Your task to perform on an android device: Open maps Image 0: 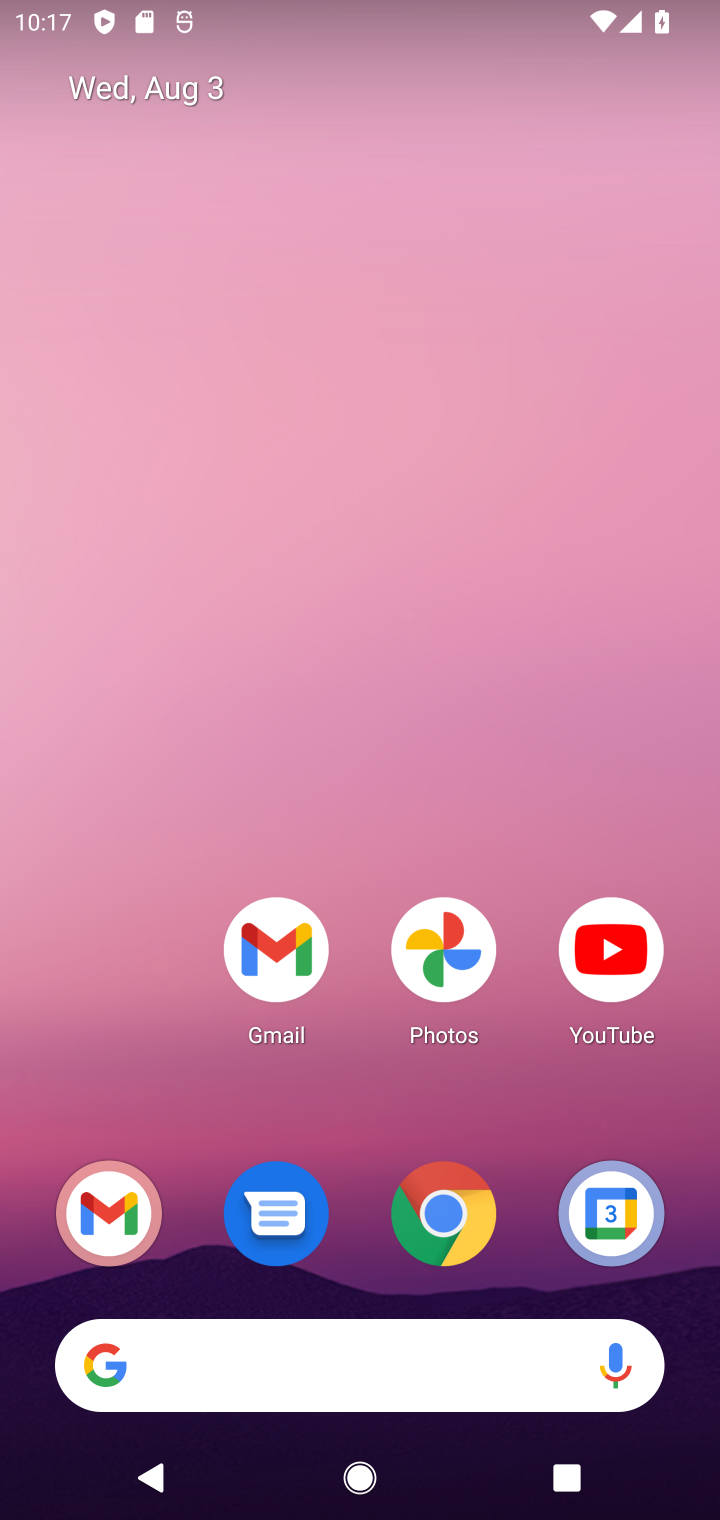
Step 0: drag from (563, 1098) to (435, 319)
Your task to perform on an android device: Open maps Image 1: 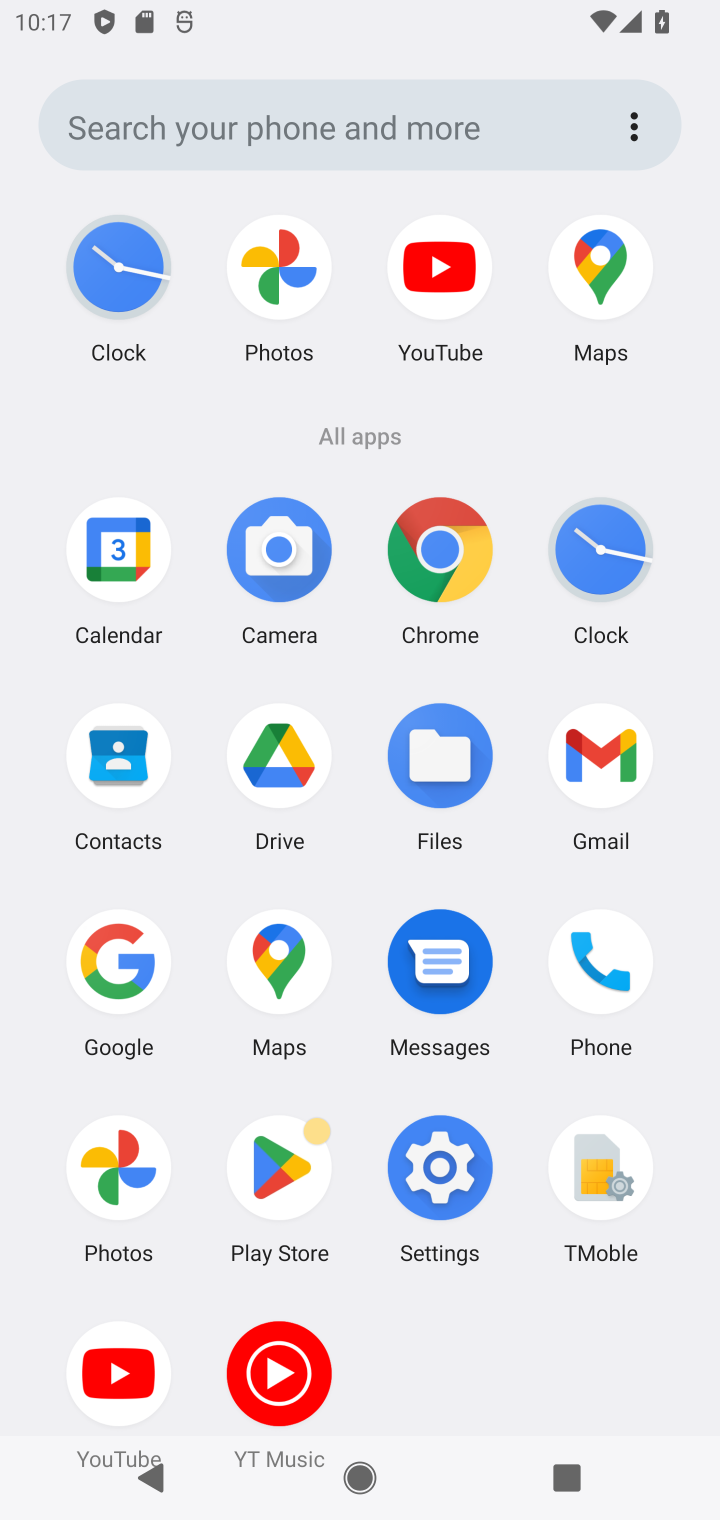
Step 1: click (274, 963)
Your task to perform on an android device: Open maps Image 2: 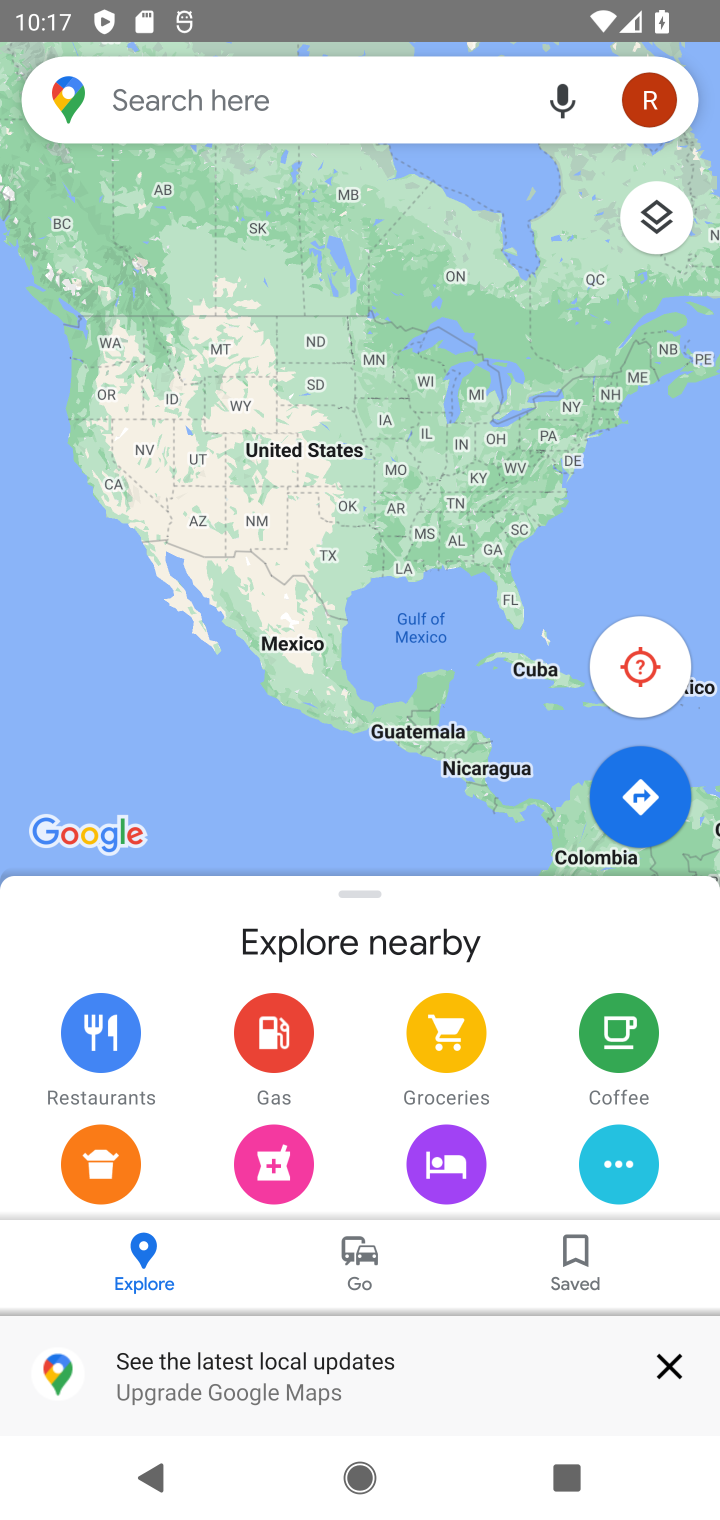
Step 2: task complete